Your task to perform on an android device: What's on my calendar today? Image 0: 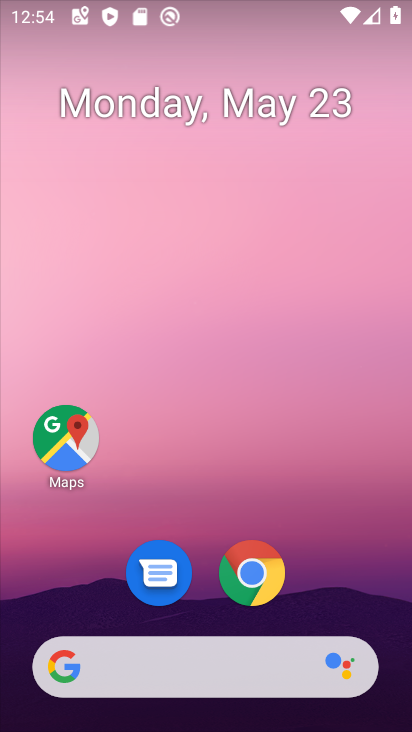
Step 0: drag from (331, 659) to (276, 296)
Your task to perform on an android device: What's on my calendar today? Image 1: 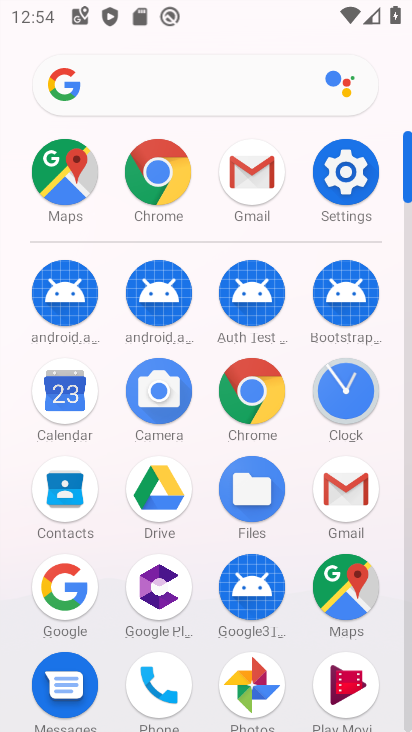
Step 1: click (68, 390)
Your task to perform on an android device: What's on my calendar today? Image 2: 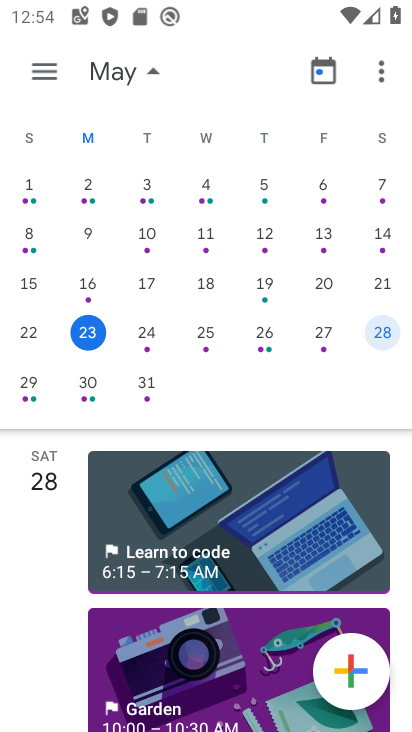
Step 2: task complete